Your task to perform on an android device: Go to sound settings Image 0: 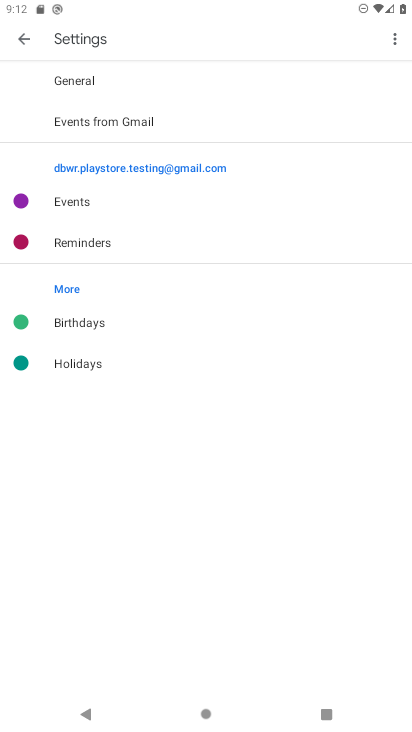
Step 0: press home button
Your task to perform on an android device: Go to sound settings Image 1: 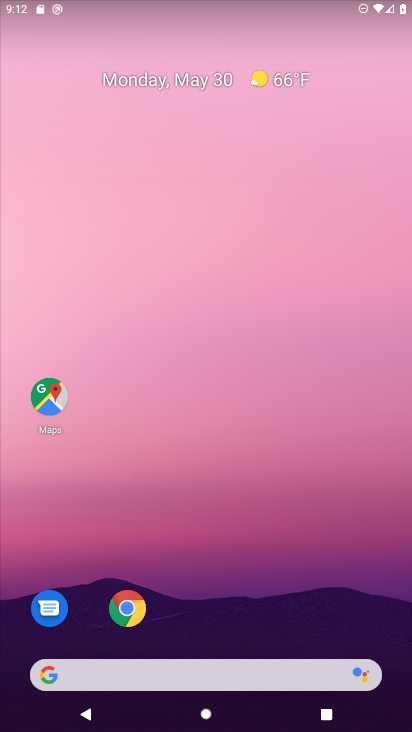
Step 1: drag from (217, 705) to (217, 566)
Your task to perform on an android device: Go to sound settings Image 2: 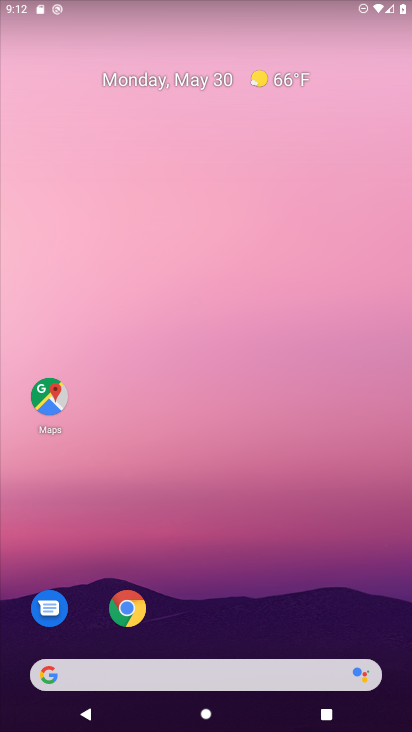
Step 2: click (172, 4)
Your task to perform on an android device: Go to sound settings Image 3: 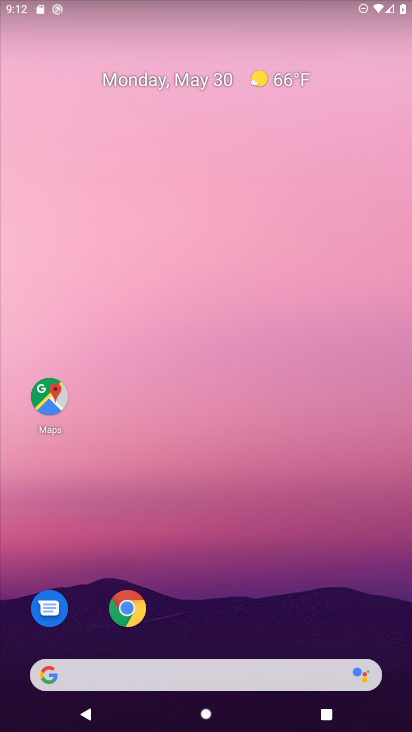
Step 3: drag from (215, 618) to (213, 584)
Your task to perform on an android device: Go to sound settings Image 4: 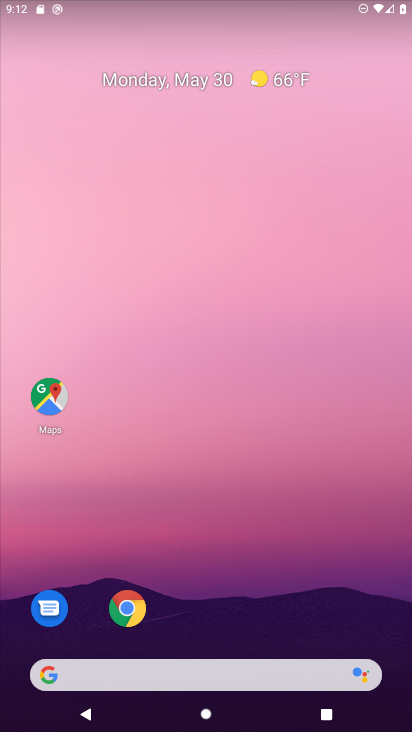
Step 4: click (191, 68)
Your task to perform on an android device: Go to sound settings Image 5: 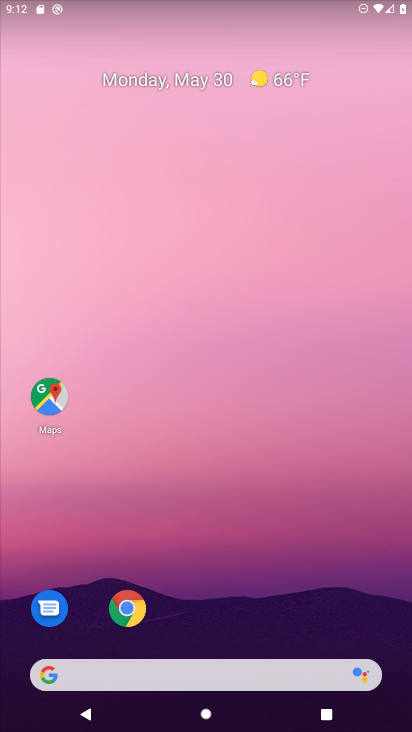
Step 5: drag from (224, 725) to (233, 639)
Your task to perform on an android device: Go to sound settings Image 6: 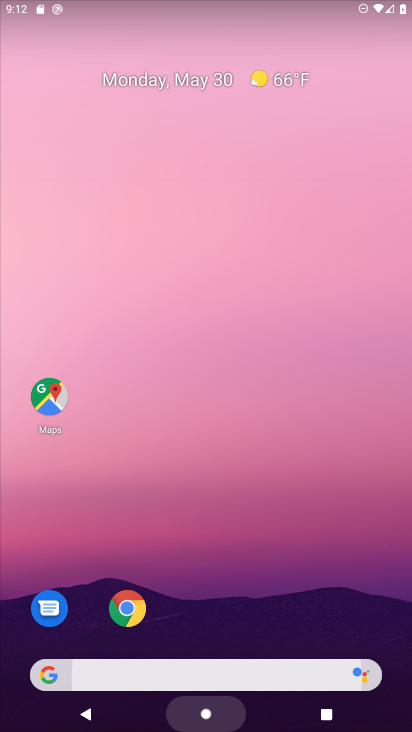
Step 6: drag from (233, 254) to (233, 176)
Your task to perform on an android device: Go to sound settings Image 7: 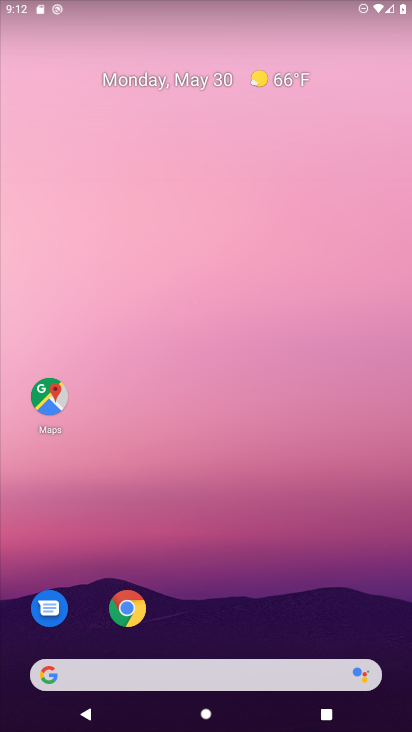
Step 7: click (232, 714)
Your task to perform on an android device: Go to sound settings Image 8: 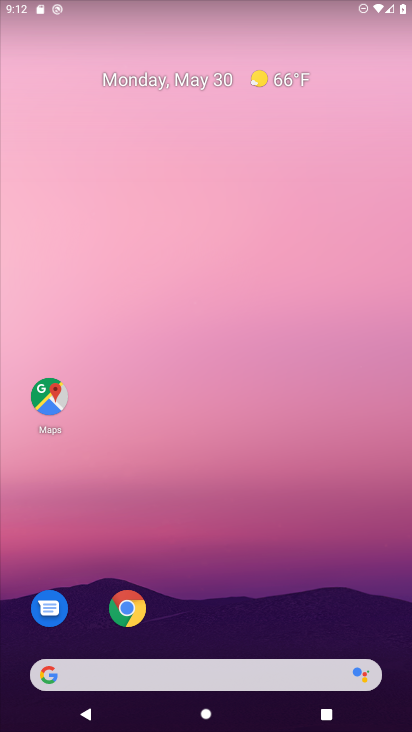
Step 8: drag from (225, 721) to (228, 219)
Your task to perform on an android device: Go to sound settings Image 9: 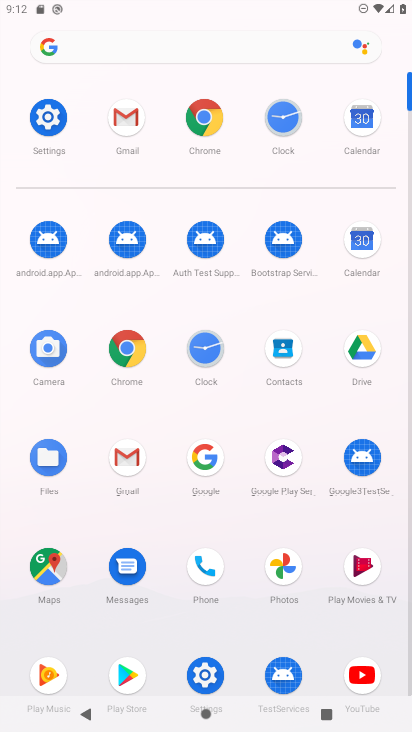
Step 9: click (49, 110)
Your task to perform on an android device: Go to sound settings Image 10: 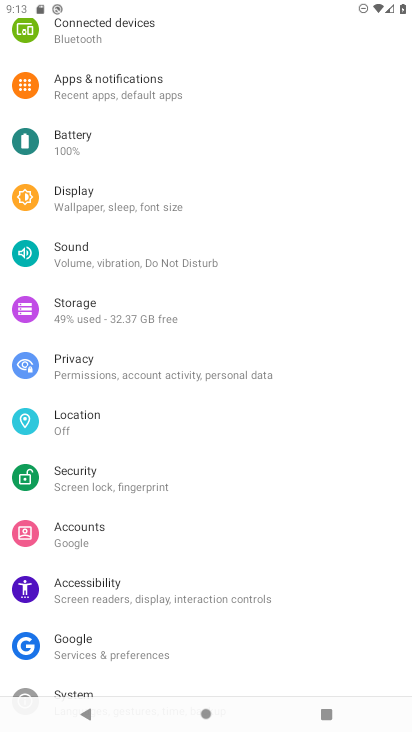
Step 10: click (75, 252)
Your task to perform on an android device: Go to sound settings Image 11: 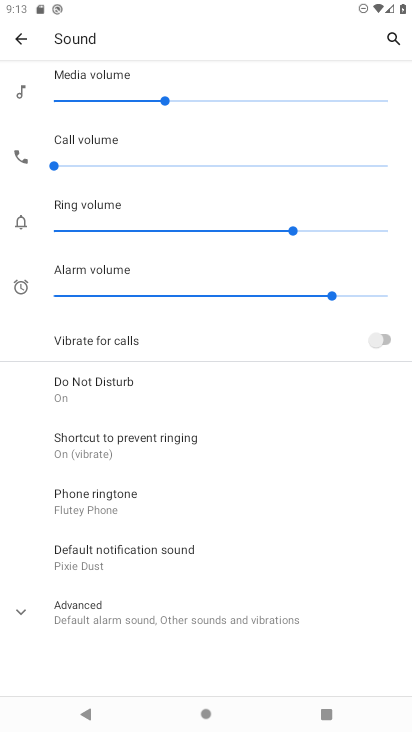
Step 11: task complete